Your task to perform on an android device: set the timer Image 0: 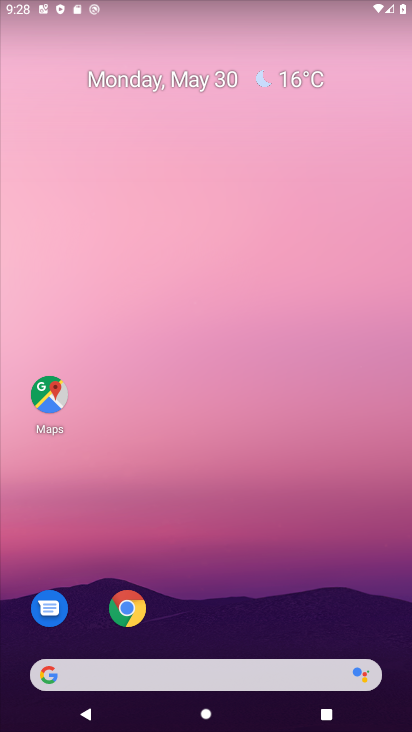
Step 0: click (319, 187)
Your task to perform on an android device: set the timer Image 1: 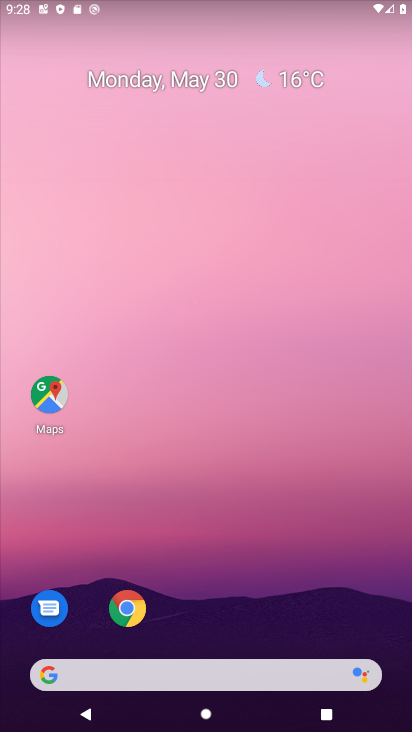
Step 1: drag from (393, 725) to (331, 257)
Your task to perform on an android device: set the timer Image 2: 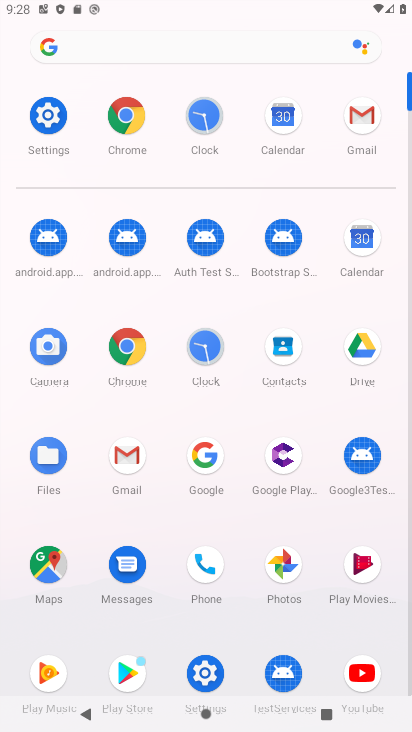
Step 2: click (206, 344)
Your task to perform on an android device: set the timer Image 3: 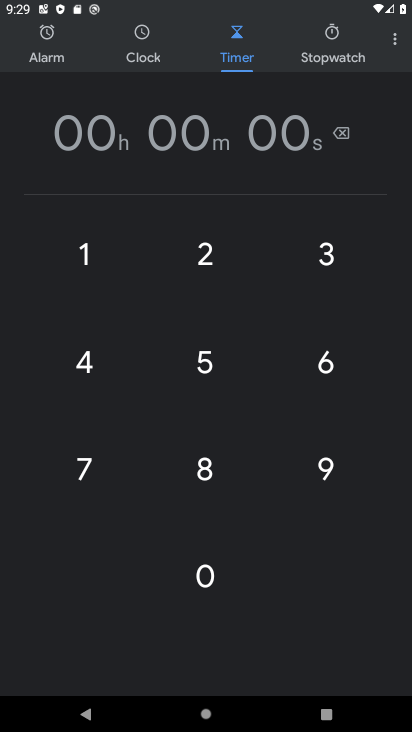
Step 3: click (90, 129)
Your task to perform on an android device: set the timer Image 4: 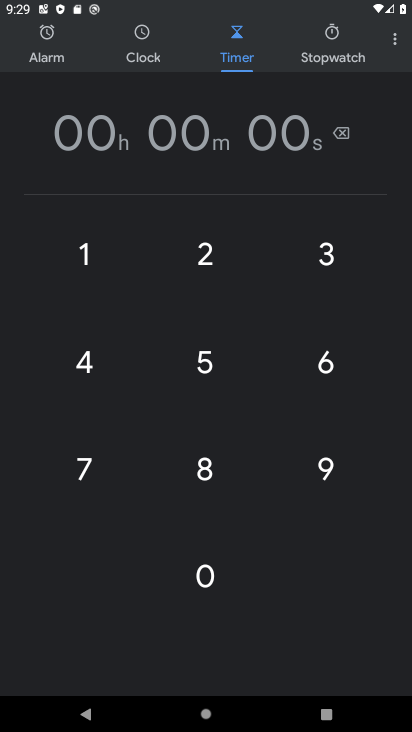
Step 4: click (80, 255)
Your task to perform on an android device: set the timer Image 5: 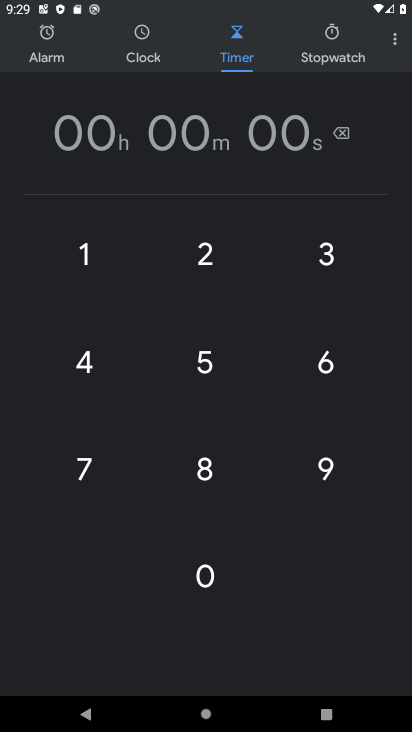
Step 5: click (80, 255)
Your task to perform on an android device: set the timer Image 6: 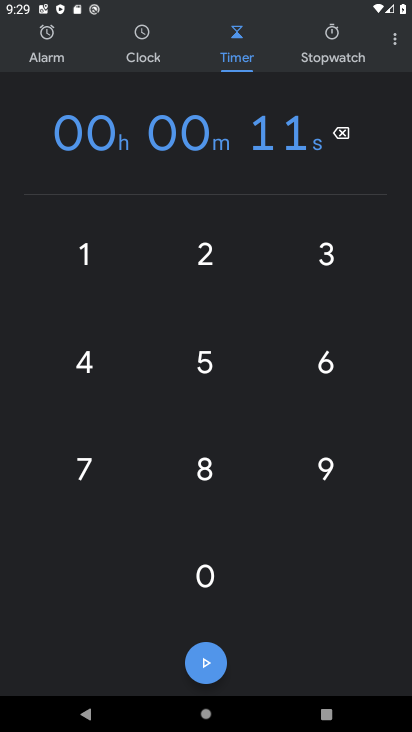
Step 6: click (80, 256)
Your task to perform on an android device: set the timer Image 7: 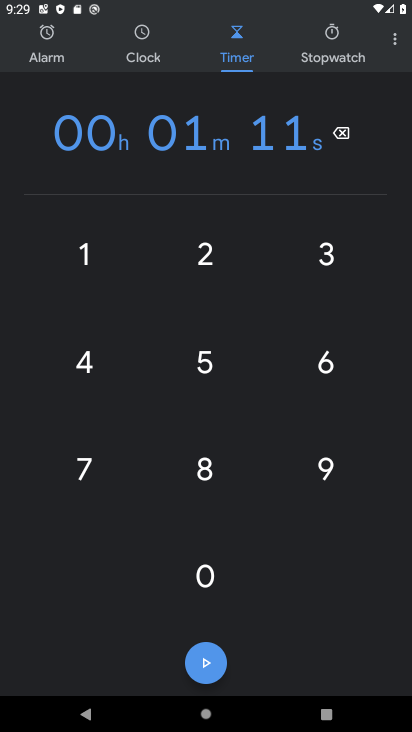
Step 7: task complete